Your task to perform on an android device: Show me productivity apps on the Play Store Image 0: 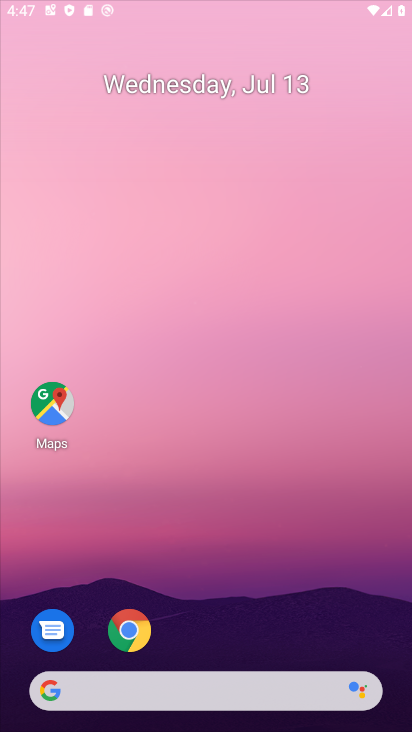
Step 0: drag from (209, 684) to (272, 163)
Your task to perform on an android device: Show me productivity apps on the Play Store Image 1: 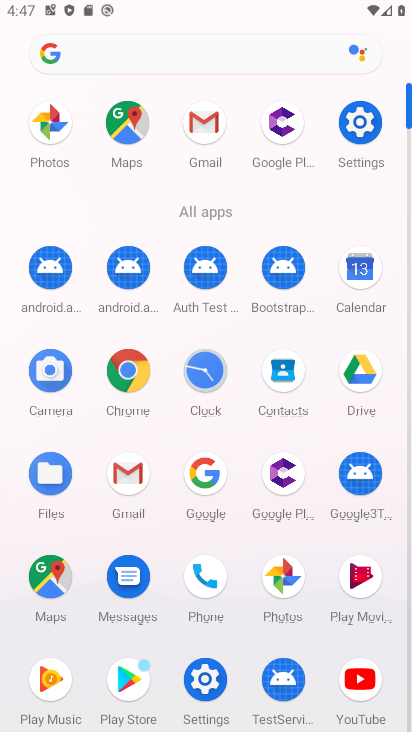
Step 1: click (130, 677)
Your task to perform on an android device: Show me productivity apps on the Play Store Image 2: 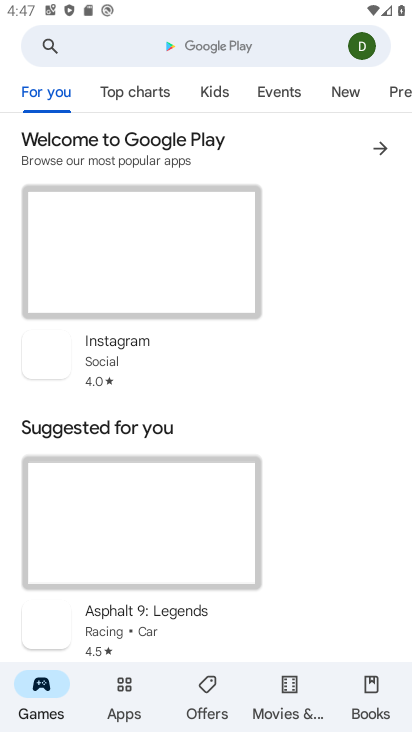
Step 2: click (134, 701)
Your task to perform on an android device: Show me productivity apps on the Play Store Image 3: 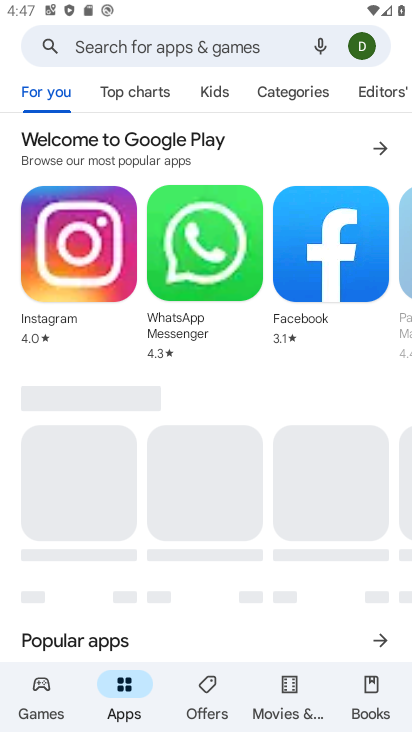
Step 3: click (315, 97)
Your task to perform on an android device: Show me productivity apps on the Play Store Image 4: 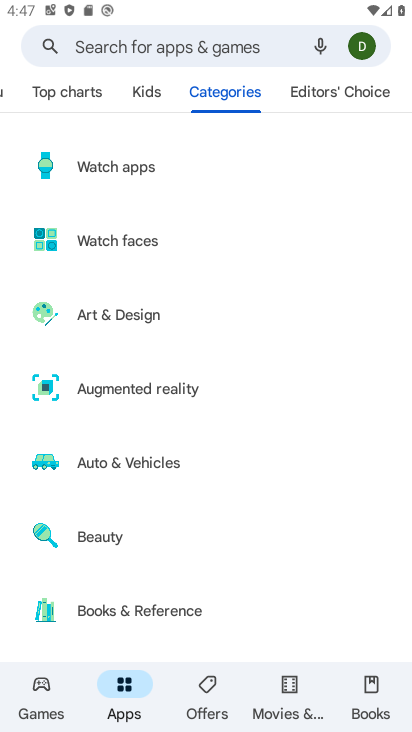
Step 4: drag from (172, 559) to (250, 105)
Your task to perform on an android device: Show me productivity apps on the Play Store Image 5: 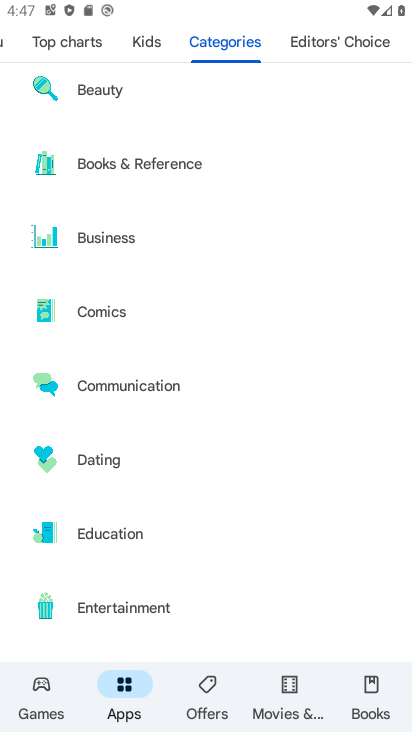
Step 5: drag from (176, 592) to (278, 126)
Your task to perform on an android device: Show me productivity apps on the Play Store Image 6: 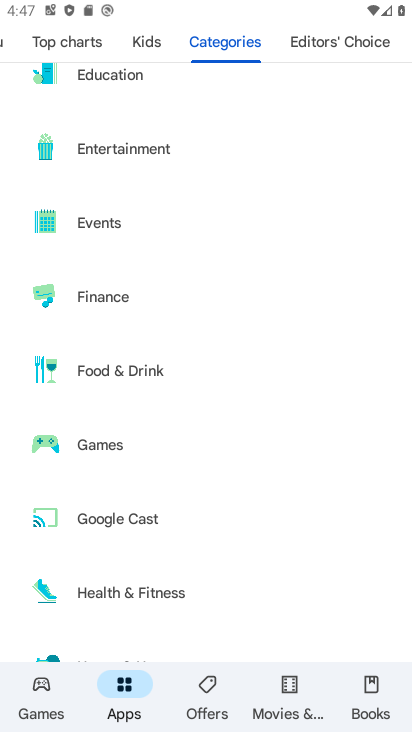
Step 6: drag from (177, 583) to (280, 129)
Your task to perform on an android device: Show me productivity apps on the Play Store Image 7: 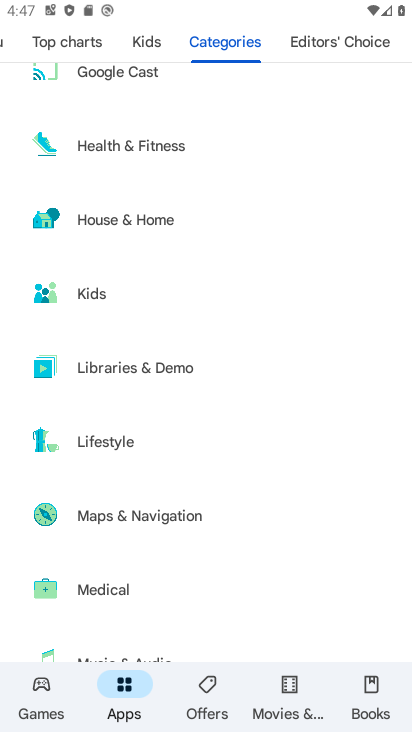
Step 7: drag from (197, 575) to (286, 148)
Your task to perform on an android device: Show me productivity apps on the Play Store Image 8: 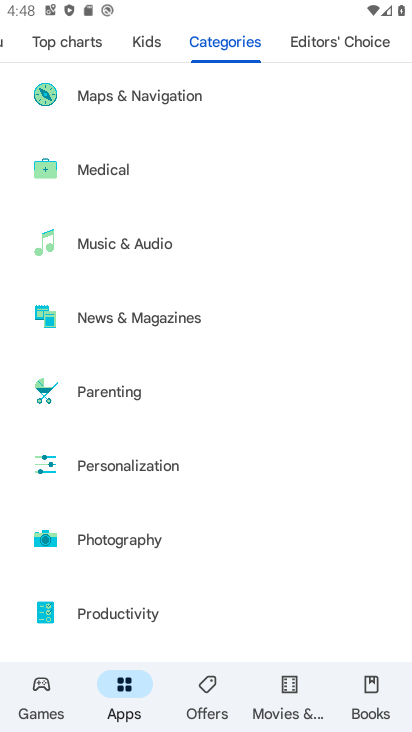
Step 8: click (155, 618)
Your task to perform on an android device: Show me productivity apps on the Play Store Image 9: 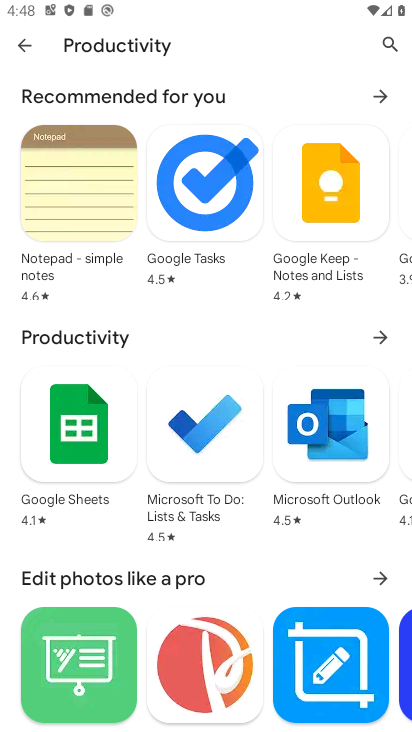
Step 9: task complete